Your task to perform on an android device: Clear the shopping cart on ebay. Search for alienware area 51 on ebay, select the first entry, add it to the cart, then select checkout. Image 0: 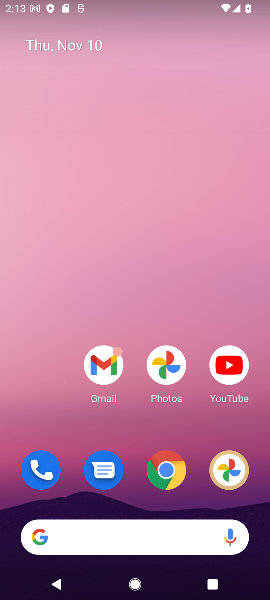
Step 0: click (168, 471)
Your task to perform on an android device: Clear the shopping cart on ebay. Search for alienware area 51 on ebay, select the first entry, add it to the cart, then select checkout. Image 1: 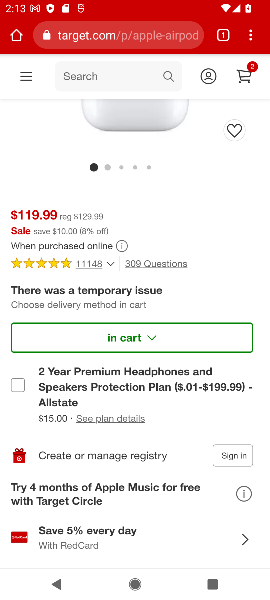
Step 1: click (123, 37)
Your task to perform on an android device: Clear the shopping cart on ebay. Search for alienware area 51 on ebay, select the first entry, add it to the cart, then select checkout. Image 2: 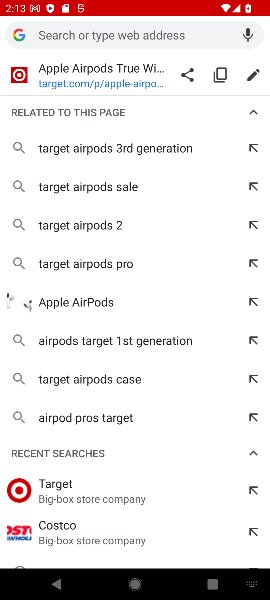
Step 2: type "ebay"
Your task to perform on an android device: Clear the shopping cart on ebay. Search for alienware area 51 on ebay, select the first entry, add it to the cart, then select checkout. Image 3: 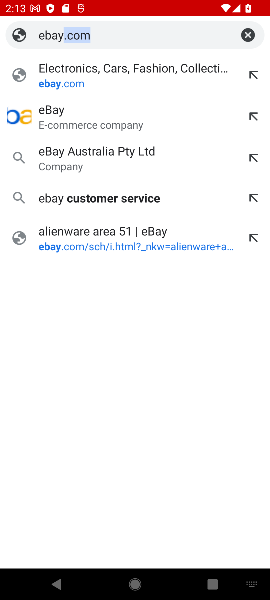
Step 3: click (119, 128)
Your task to perform on an android device: Clear the shopping cart on ebay. Search for alienware area 51 on ebay, select the first entry, add it to the cart, then select checkout. Image 4: 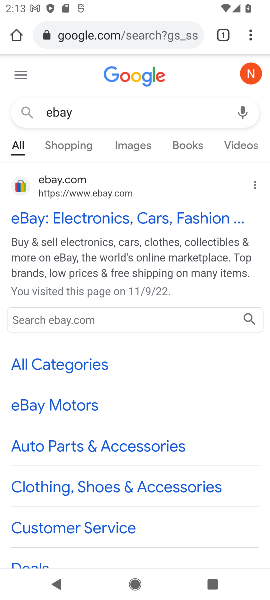
Step 4: click (77, 205)
Your task to perform on an android device: Clear the shopping cart on ebay. Search for alienware area 51 on ebay, select the first entry, add it to the cart, then select checkout. Image 5: 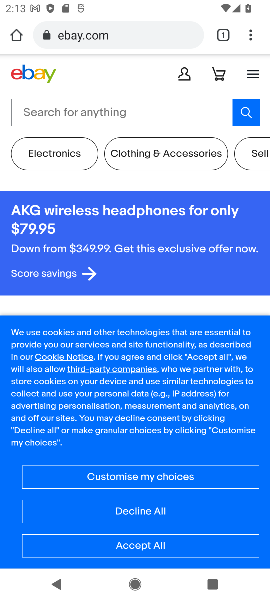
Step 5: click (219, 74)
Your task to perform on an android device: Clear the shopping cart on ebay. Search for alienware area 51 on ebay, select the first entry, add it to the cart, then select checkout. Image 6: 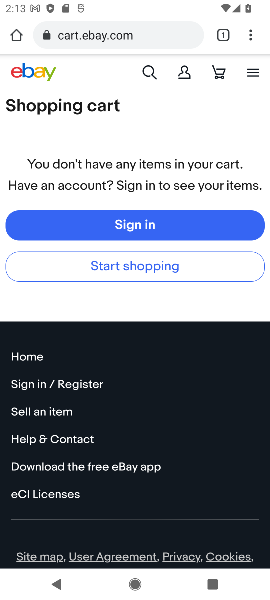
Step 6: click (148, 69)
Your task to perform on an android device: Clear the shopping cart on ebay. Search for alienware area 51 on ebay, select the first entry, add it to the cart, then select checkout. Image 7: 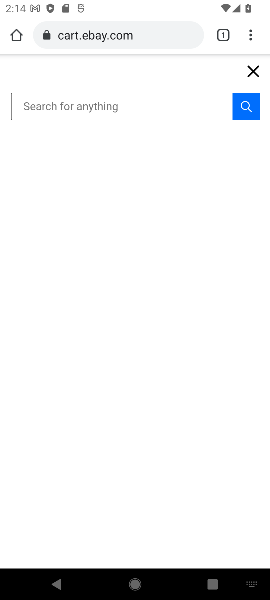
Step 7: type "alienware area 51 "
Your task to perform on an android device: Clear the shopping cart on ebay. Search for alienware area 51 on ebay, select the first entry, add it to the cart, then select checkout. Image 8: 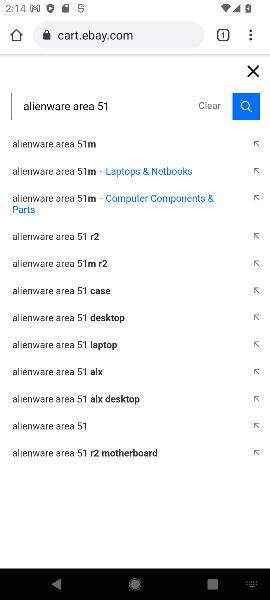
Step 8: click (64, 423)
Your task to perform on an android device: Clear the shopping cart on ebay. Search for alienware area 51 on ebay, select the first entry, add it to the cart, then select checkout. Image 9: 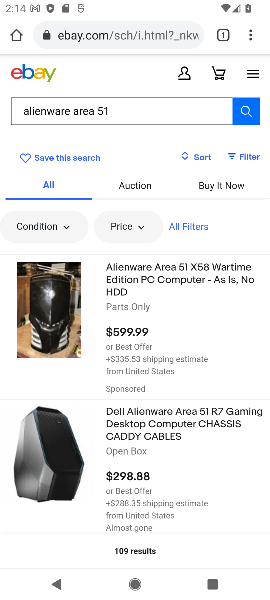
Step 9: click (185, 276)
Your task to perform on an android device: Clear the shopping cart on ebay. Search for alienware area 51 on ebay, select the first entry, add it to the cart, then select checkout. Image 10: 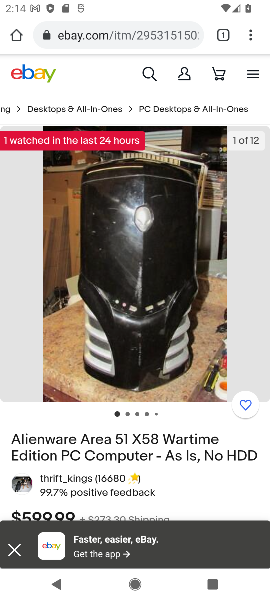
Step 10: drag from (188, 504) to (233, 159)
Your task to perform on an android device: Clear the shopping cart on ebay. Search for alienware area 51 on ebay, select the first entry, add it to the cart, then select checkout. Image 11: 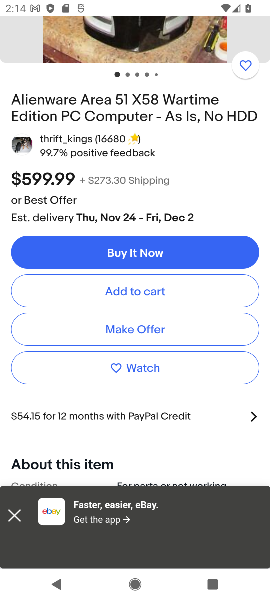
Step 11: click (136, 291)
Your task to perform on an android device: Clear the shopping cart on ebay. Search for alienware area 51 on ebay, select the first entry, add it to the cart, then select checkout. Image 12: 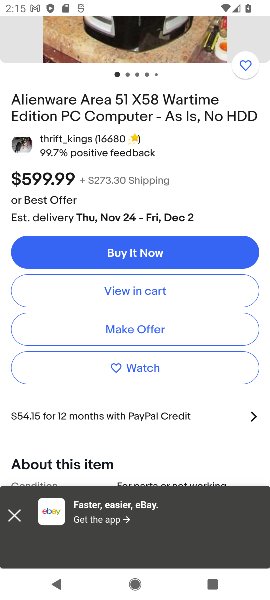
Step 12: click (136, 291)
Your task to perform on an android device: Clear the shopping cart on ebay. Search for alienware area 51 on ebay, select the first entry, add it to the cart, then select checkout. Image 13: 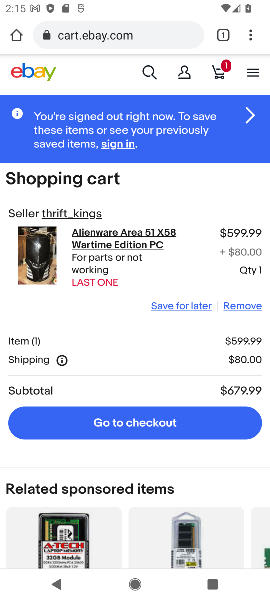
Step 13: click (151, 423)
Your task to perform on an android device: Clear the shopping cart on ebay. Search for alienware area 51 on ebay, select the first entry, add it to the cart, then select checkout. Image 14: 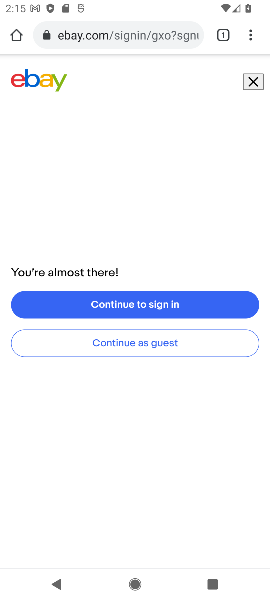
Step 14: task complete